Your task to perform on an android device: Open Amazon Image 0: 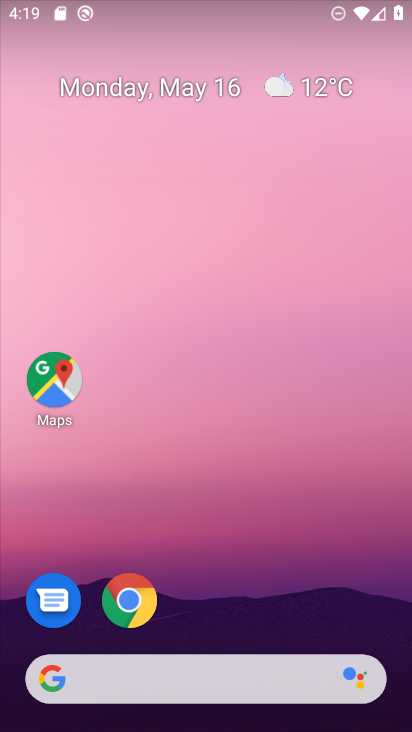
Step 0: click (125, 592)
Your task to perform on an android device: Open Amazon Image 1: 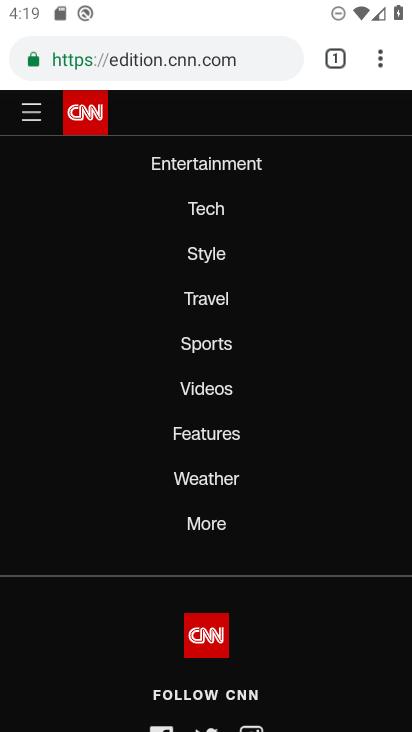
Step 1: click (192, 70)
Your task to perform on an android device: Open Amazon Image 2: 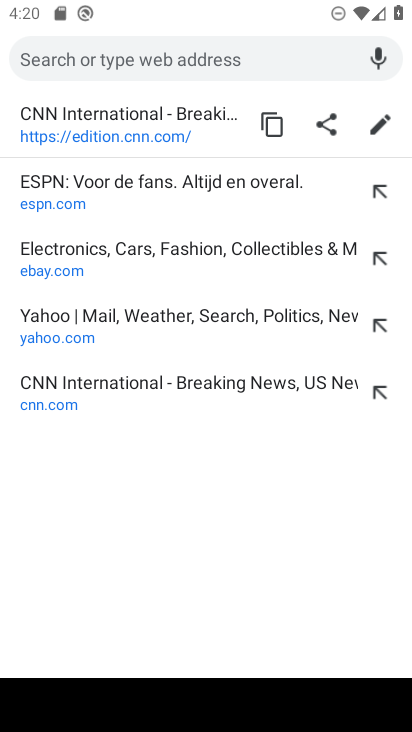
Step 2: type "amazon"
Your task to perform on an android device: Open Amazon Image 3: 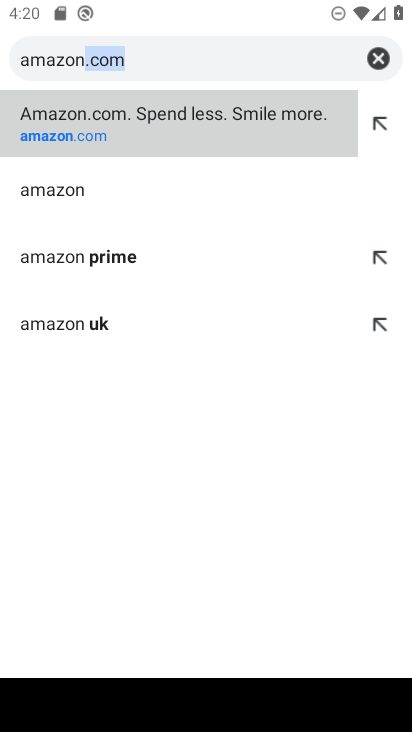
Step 3: click (35, 137)
Your task to perform on an android device: Open Amazon Image 4: 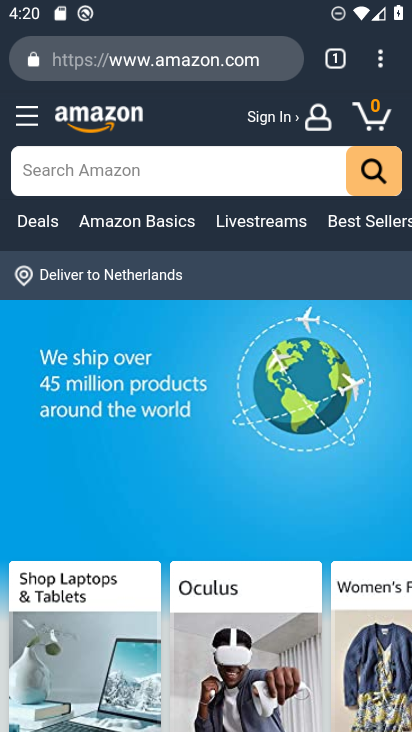
Step 4: task complete